Your task to perform on an android device: turn notification dots off Image 0: 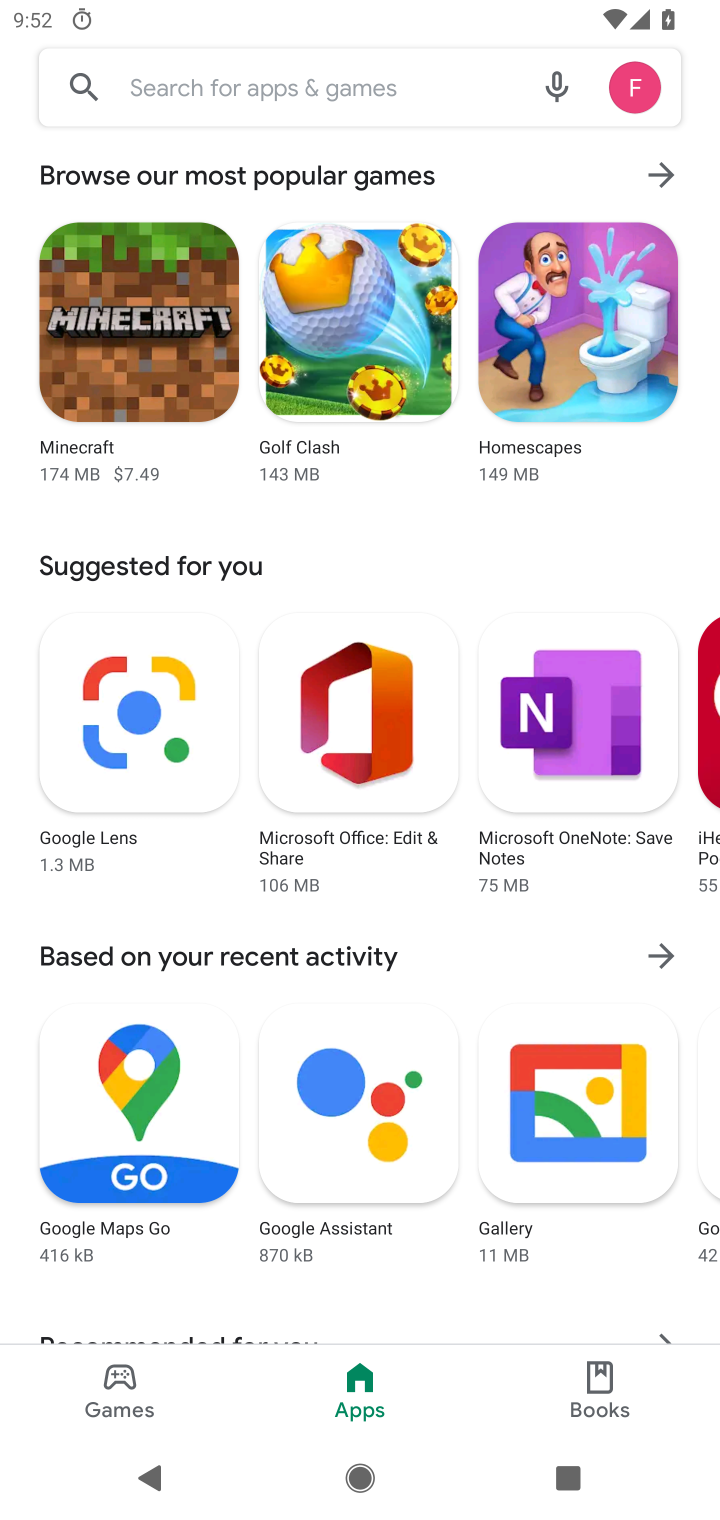
Step 0: press home button
Your task to perform on an android device: turn notification dots off Image 1: 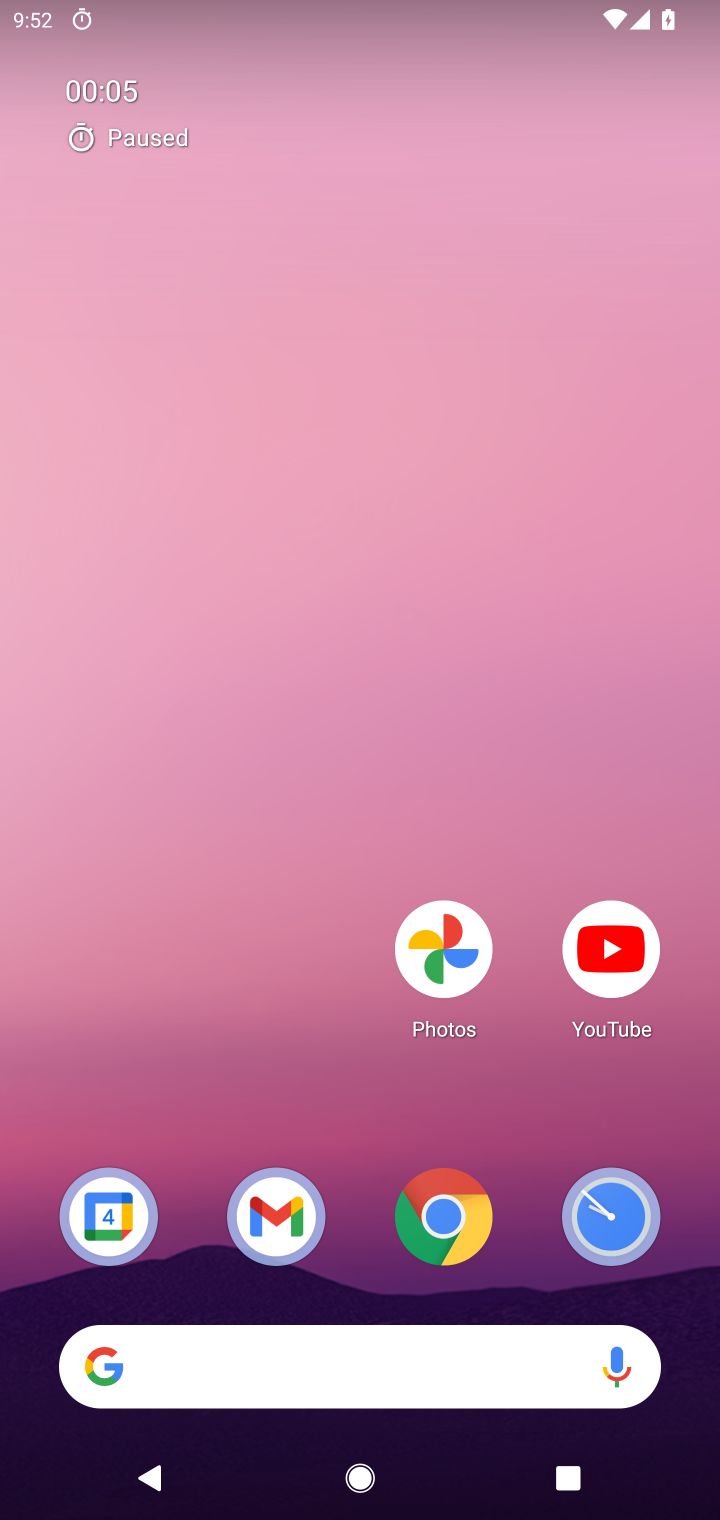
Step 1: drag from (332, 951) to (309, 321)
Your task to perform on an android device: turn notification dots off Image 2: 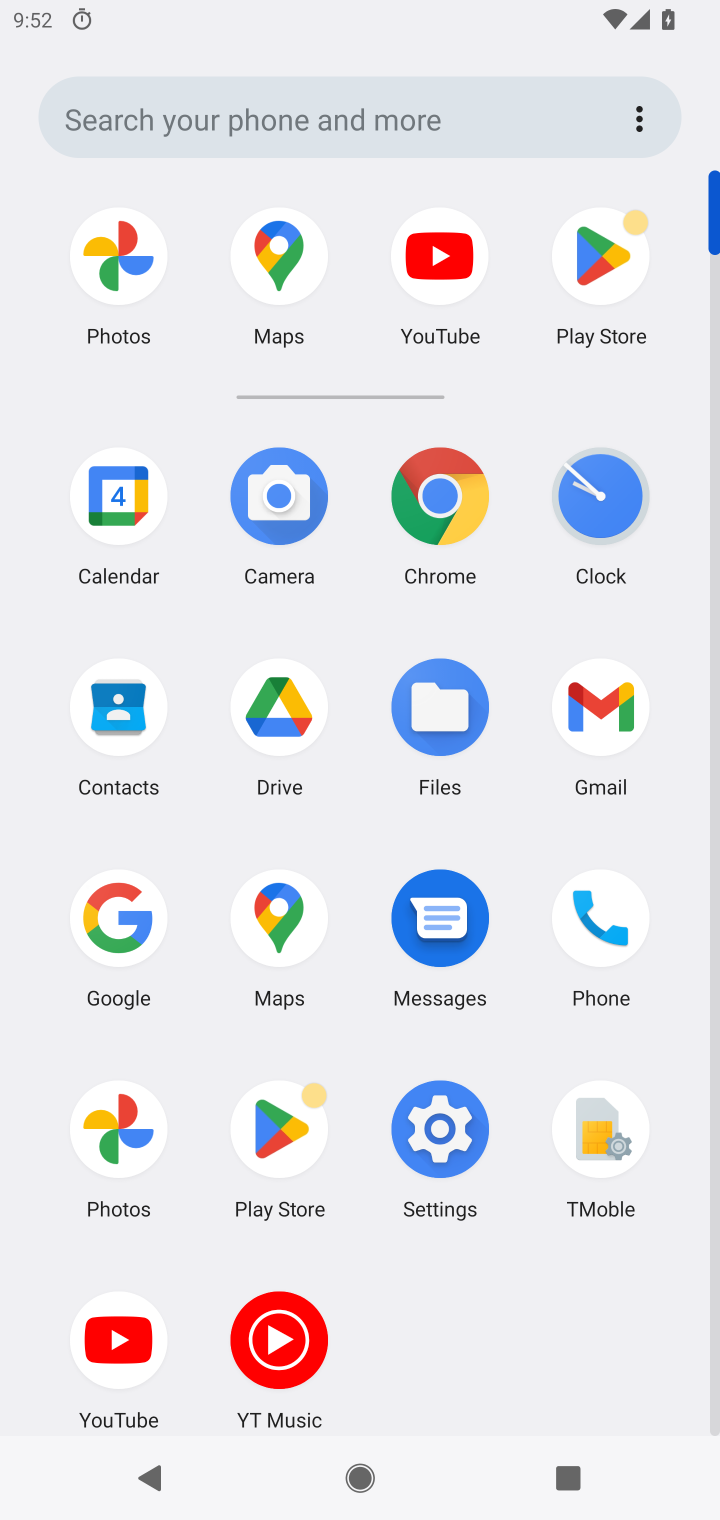
Step 2: click (422, 1113)
Your task to perform on an android device: turn notification dots off Image 3: 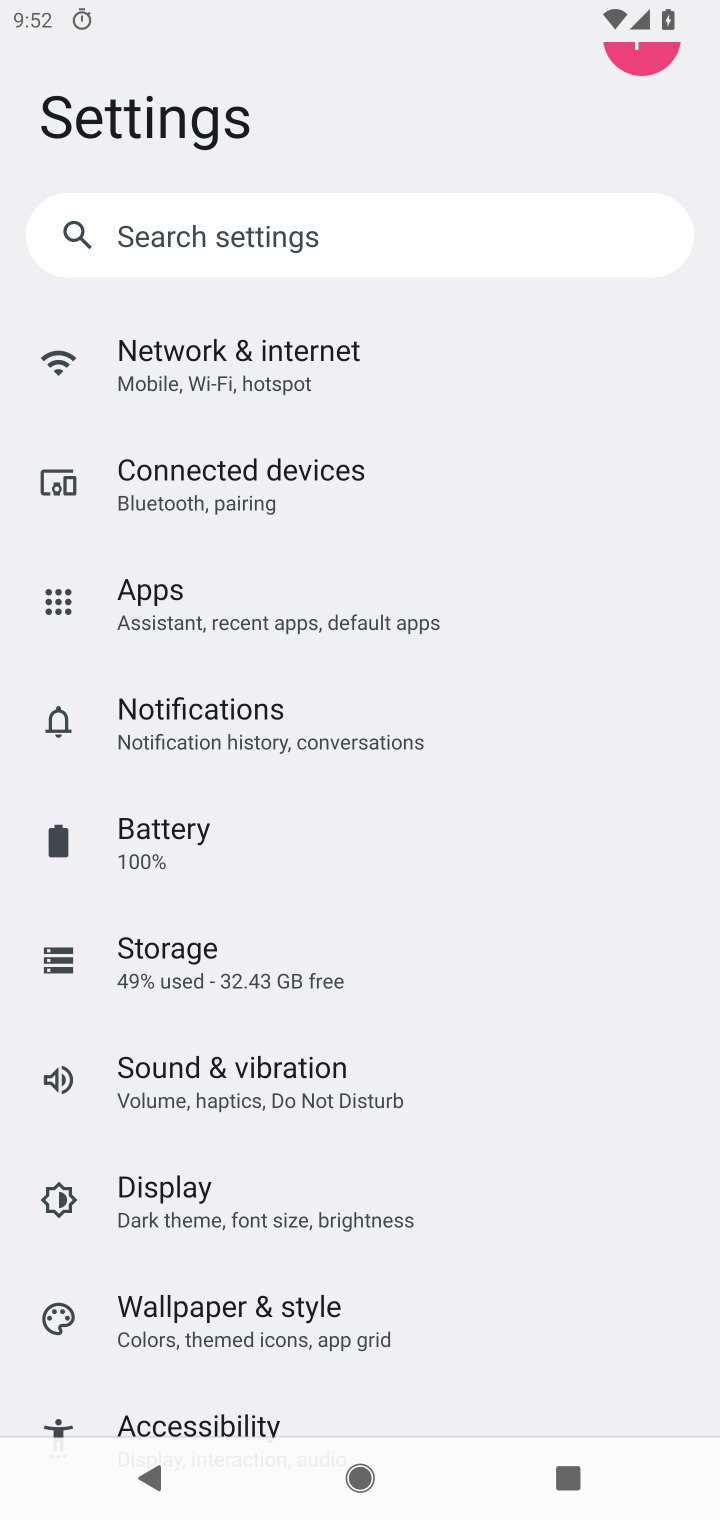
Step 3: click (239, 717)
Your task to perform on an android device: turn notification dots off Image 4: 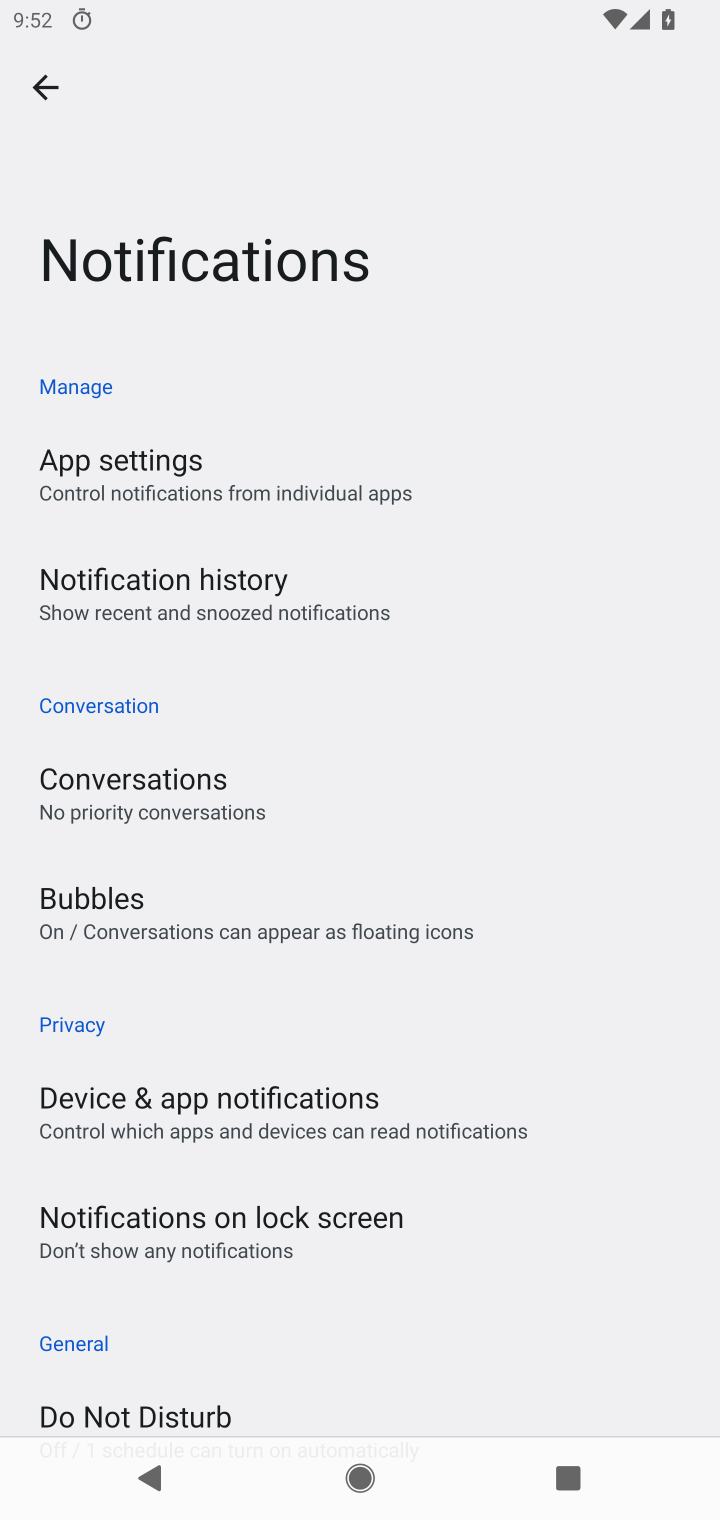
Step 4: task complete